Your task to perform on an android device: Open CNN.com Image 0: 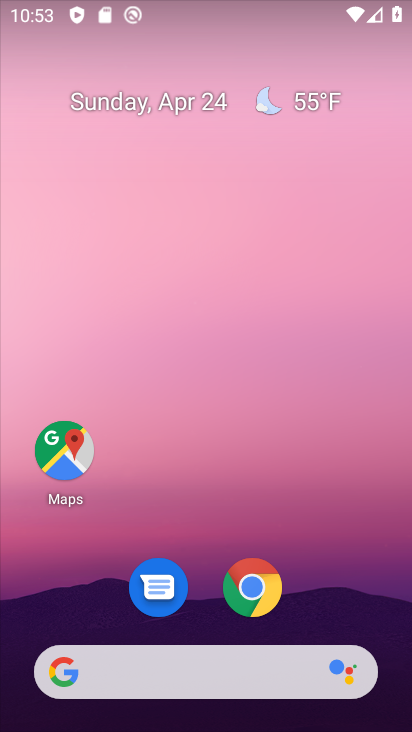
Step 0: drag from (321, 526) to (383, 28)
Your task to perform on an android device: Open CNN.com Image 1: 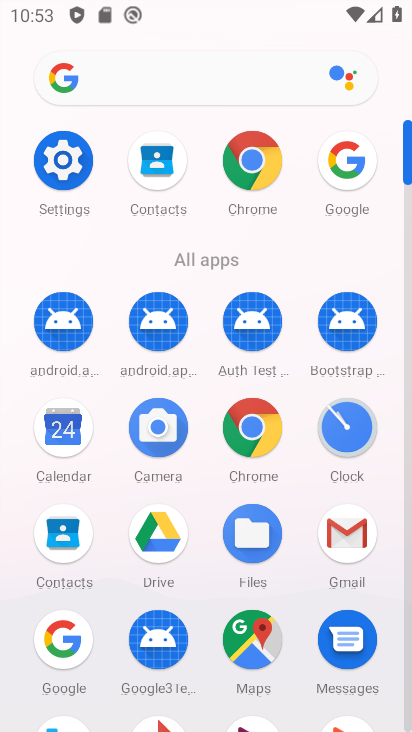
Step 1: click (239, 187)
Your task to perform on an android device: Open CNN.com Image 2: 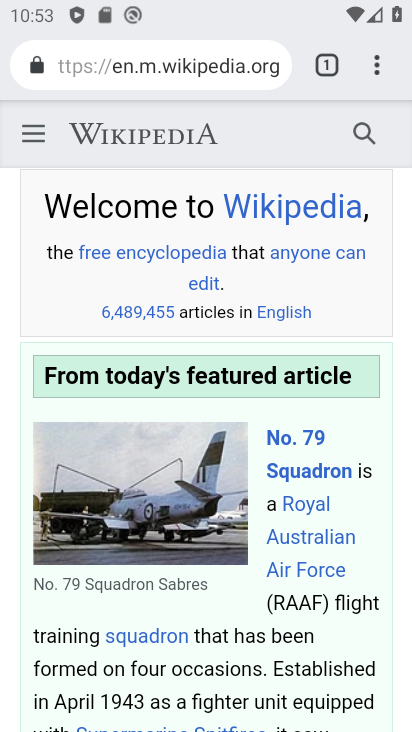
Step 2: click (263, 74)
Your task to perform on an android device: Open CNN.com Image 3: 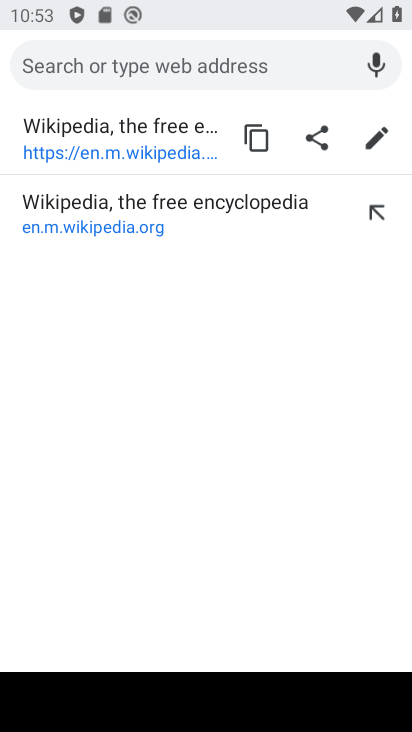
Step 3: press back button
Your task to perform on an android device: Open CNN.com Image 4: 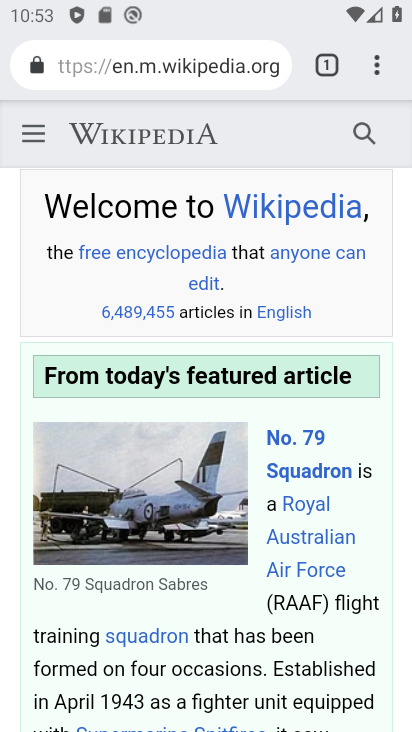
Step 4: click (199, 72)
Your task to perform on an android device: Open CNN.com Image 5: 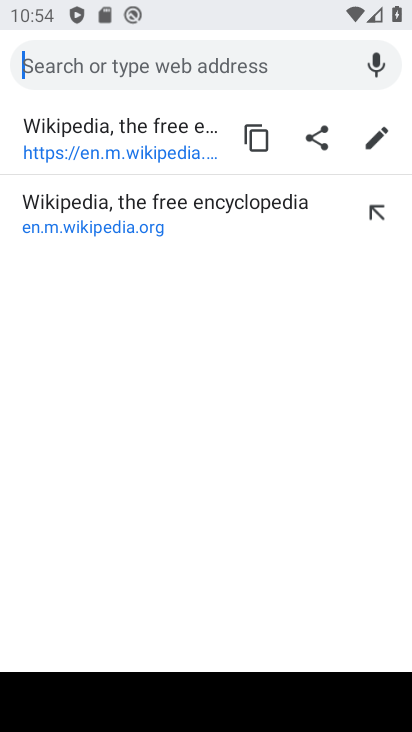
Step 5: type "cnn.com"
Your task to perform on an android device: Open CNN.com Image 6: 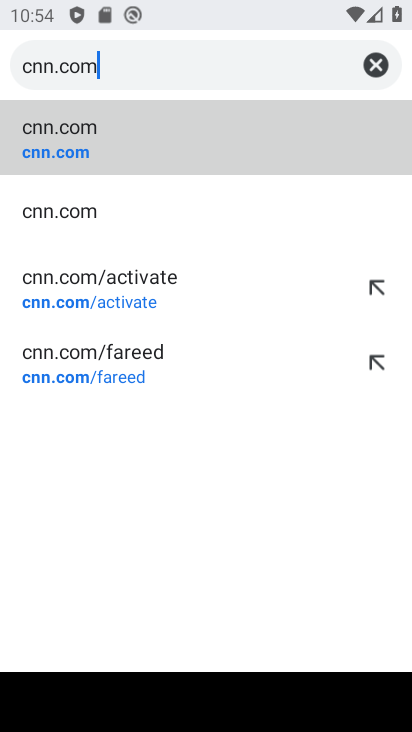
Step 6: click (83, 115)
Your task to perform on an android device: Open CNN.com Image 7: 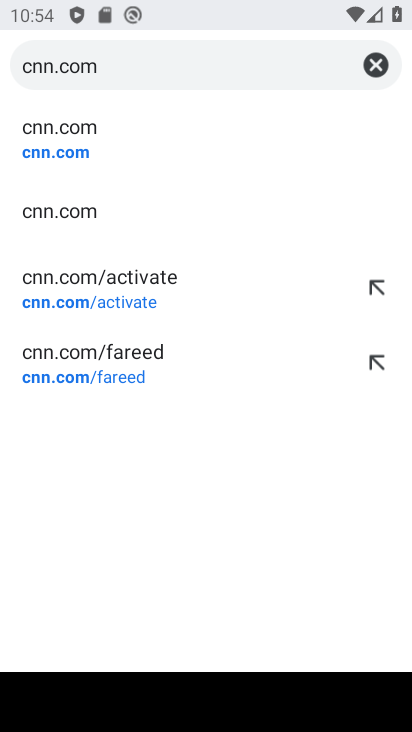
Step 7: click (36, 140)
Your task to perform on an android device: Open CNN.com Image 8: 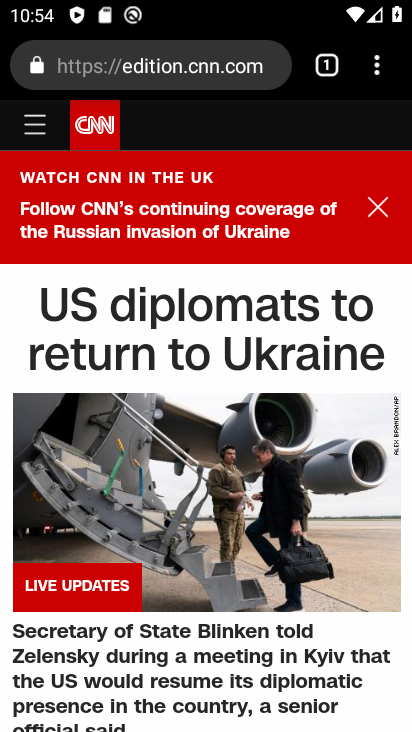
Step 8: task complete